Your task to perform on an android device: uninstall "HBO Max: Stream TV & Movies" Image 0: 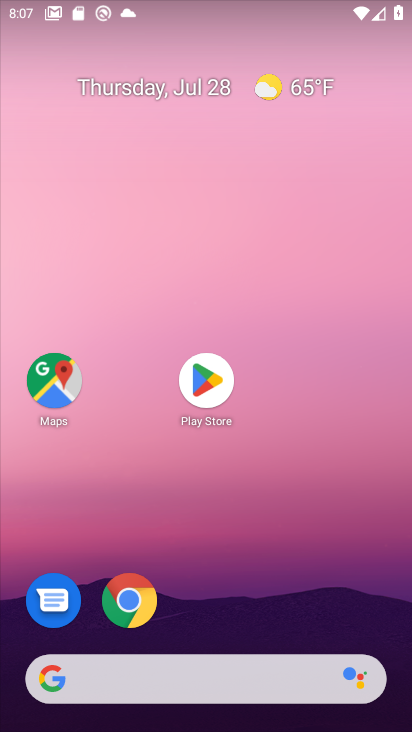
Step 0: click (198, 372)
Your task to perform on an android device: uninstall "HBO Max: Stream TV & Movies" Image 1: 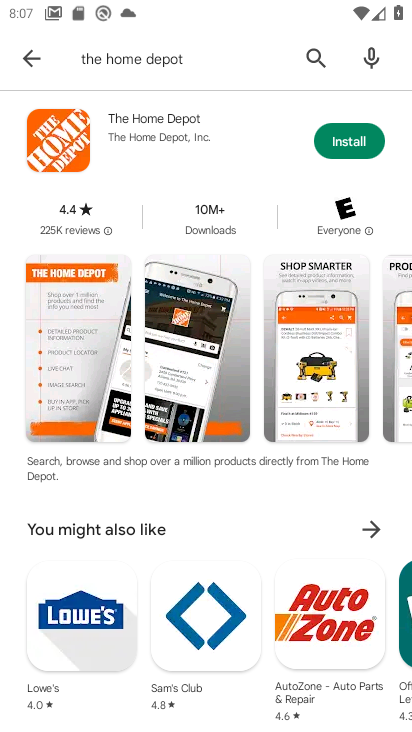
Step 1: click (310, 54)
Your task to perform on an android device: uninstall "HBO Max: Stream TV & Movies" Image 2: 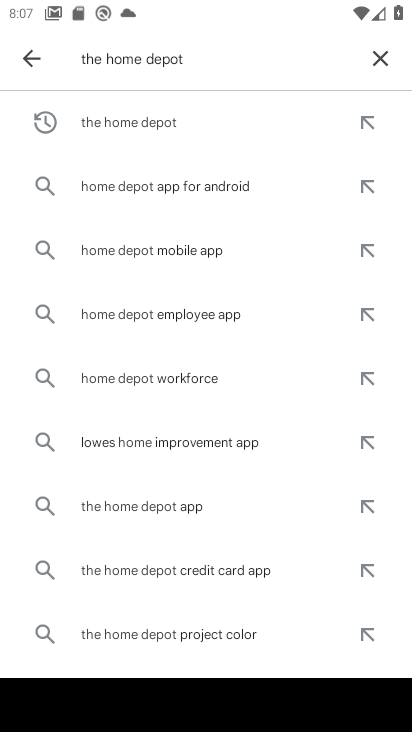
Step 2: click (380, 55)
Your task to perform on an android device: uninstall "HBO Max: Stream TV & Movies" Image 3: 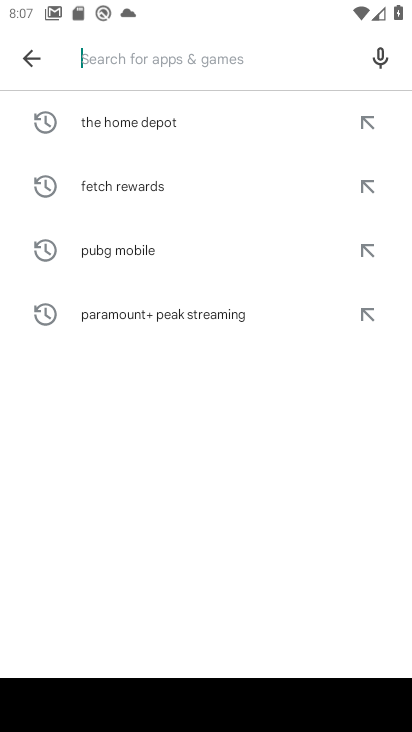
Step 3: type "HBO Max: Stream TV & Movies"
Your task to perform on an android device: uninstall "HBO Max: Stream TV & Movies" Image 4: 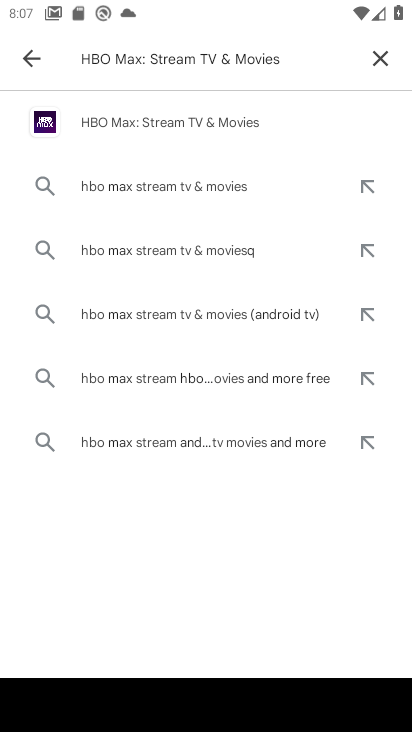
Step 4: click (180, 124)
Your task to perform on an android device: uninstall "HBO Max: Stream TV & Movies" Image 5: 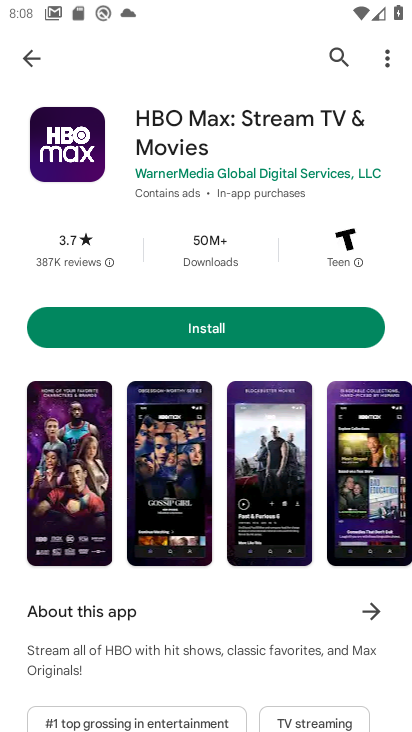
Step 5: task complete